Your task to perform on an android device: Open location settings Image 0: 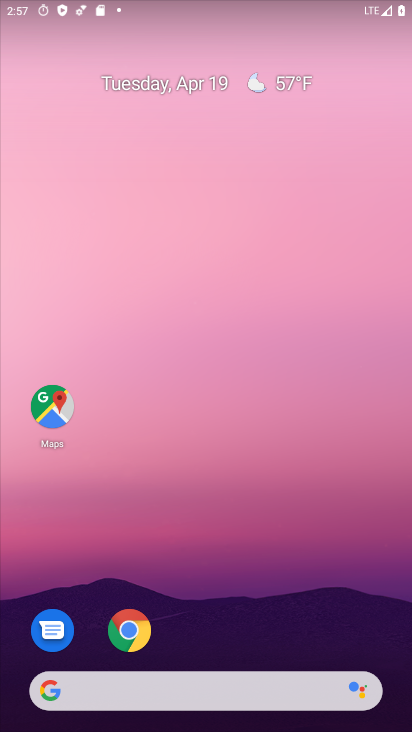
Step 0: drag from (229, 626) to (189, 114)
Your task to perform on an android device: Open location settings Image 1: 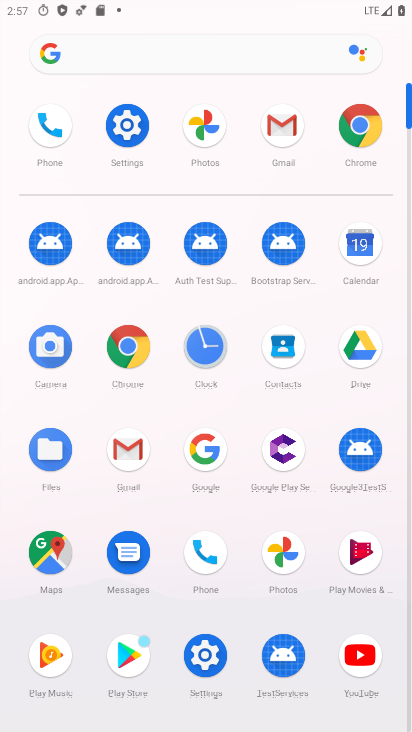
Step 1: click (129, 131)
Your task to perform on an android device: Open location settings Image 2: 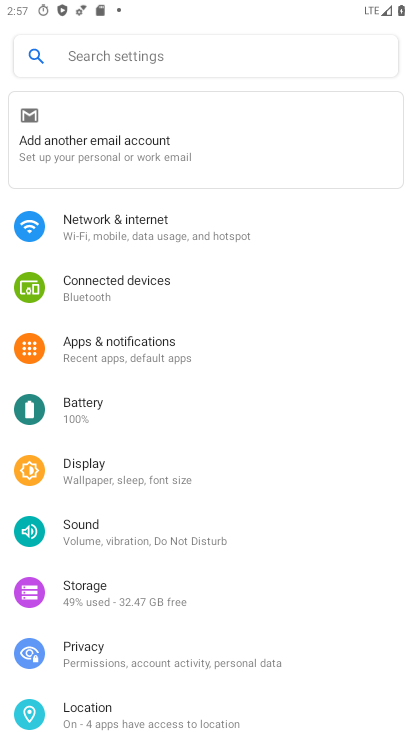
Step 2: click (154, 705)
Your task to perform on an android device: Open location settings Image 3: 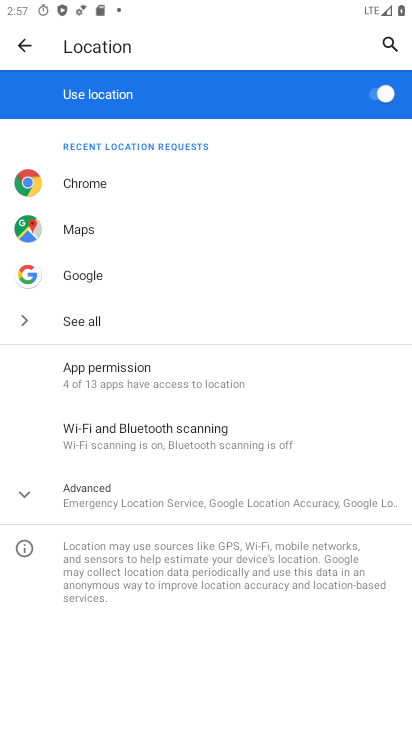
Step 3: task complete